Your task to perform on an android device: Go to notification settings Image 0: 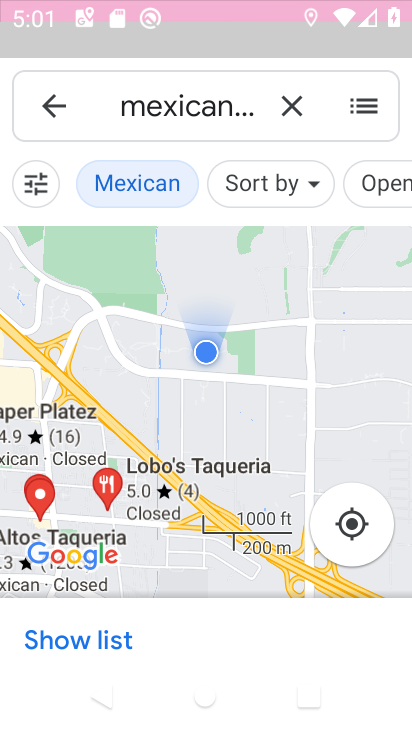
Step 0: drag from (326, 547) to (357, 319)
Your task to perform on an android device: Go to notification settings Image 1: 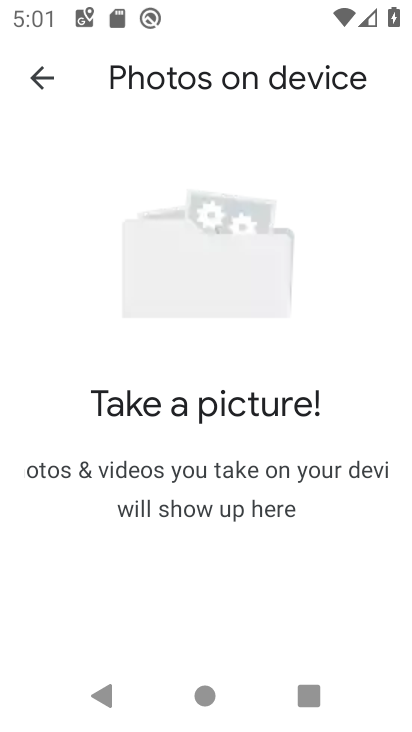
Step 1: press home button
Your task to perform on an android device: Go to notification settings Image 2: 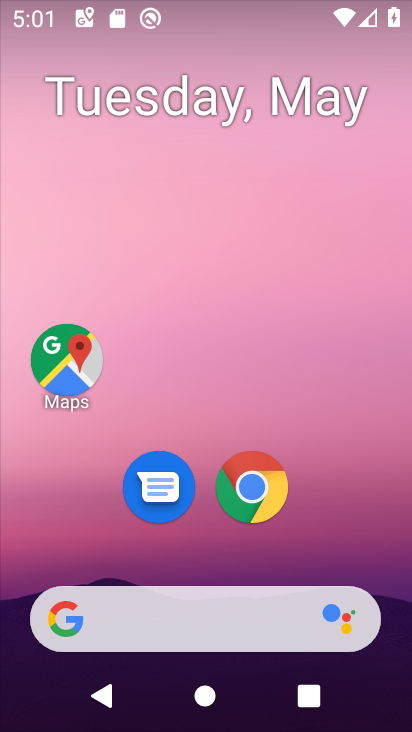
Step 2: drag from (335, 524) to (314, 96)
Your task to perform on an android device: Go to notification settings Image 3: 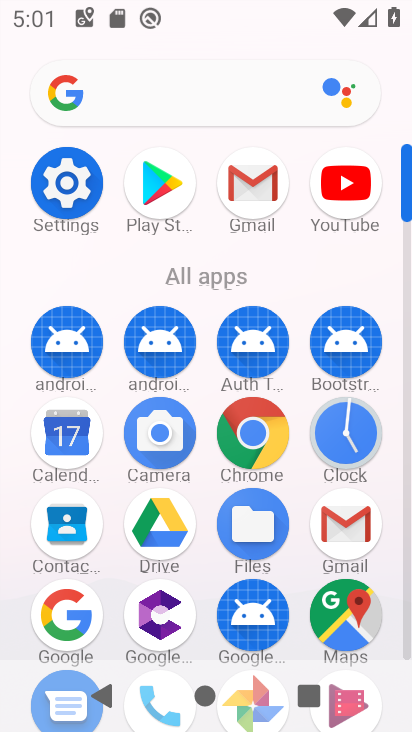
Step 3: click (76, 226)
Your task to perform on an android device: Go to notification settings Image 4: 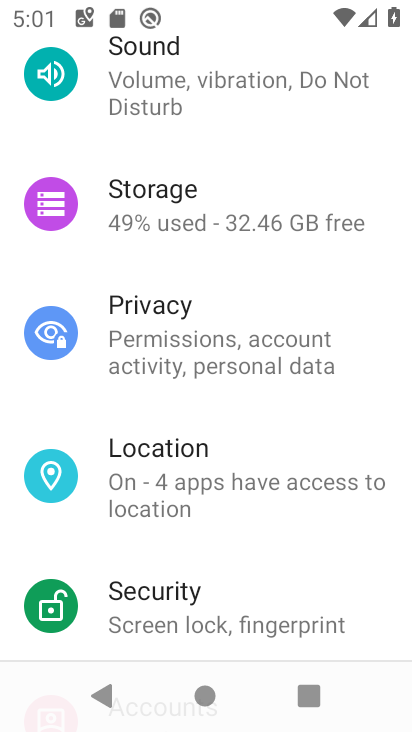
Step 4: drag from (199, 598) to (232, 282)
Your task to perform on an android device: Go to notification settings Image 5: 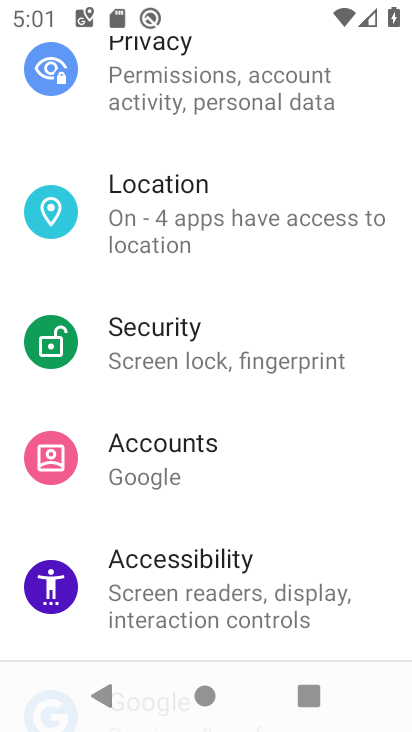
Step 5: drag from (238, 537) to (260, 310)
Your task to perform on an android device: Go to notification settings Image 6: 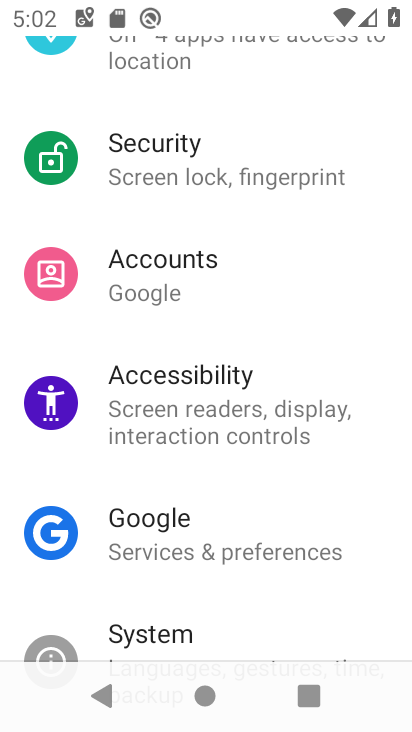
Step 6: drag from (193, 269) to (226, 679)
Your task to perform on an android device: Go to notification settings Image 7: 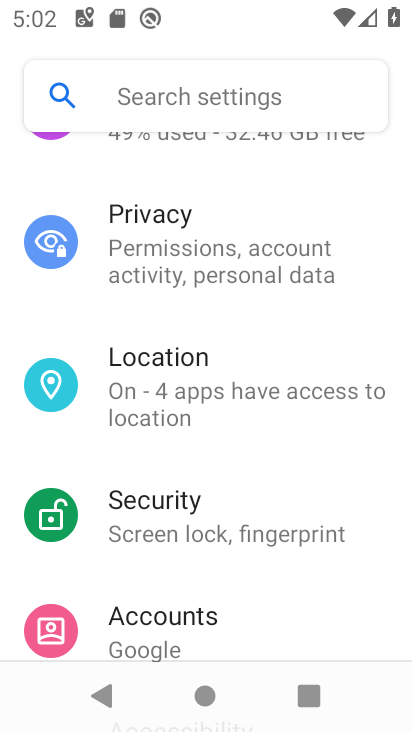
Step 7: drag from (216, 302) to (213, 483)
Your task to perform on an android device: Go to notification settings Image 8: 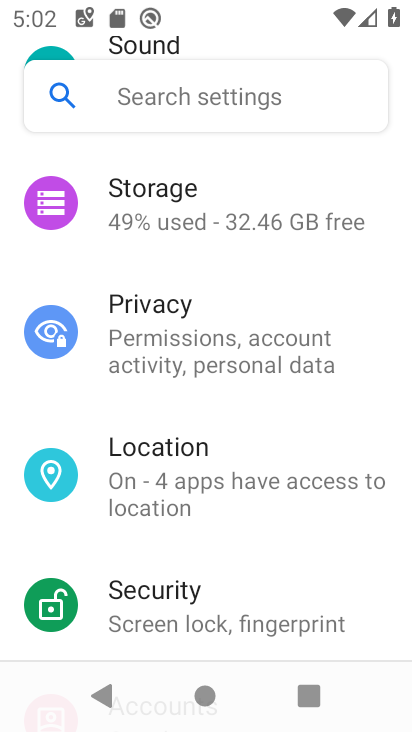
Step 8: drag from (204, 253) to (254, 660)
Your task to perform on an android device: Go to notification settings Image 9: 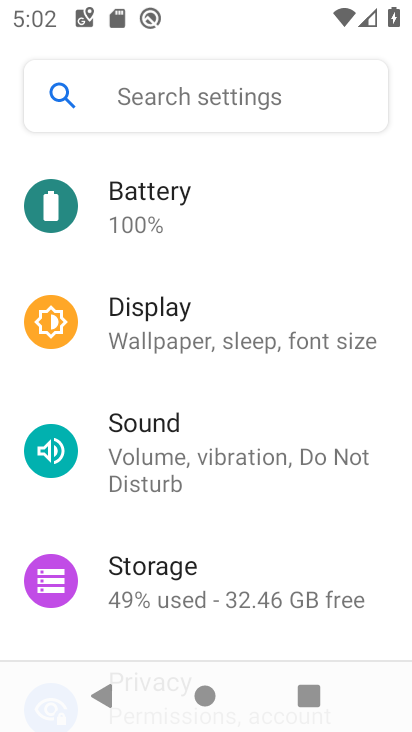
Step 9: drag from (222, 238) to (253, 617)
Your task to perform on an android device: Go to notification settings Image 10: 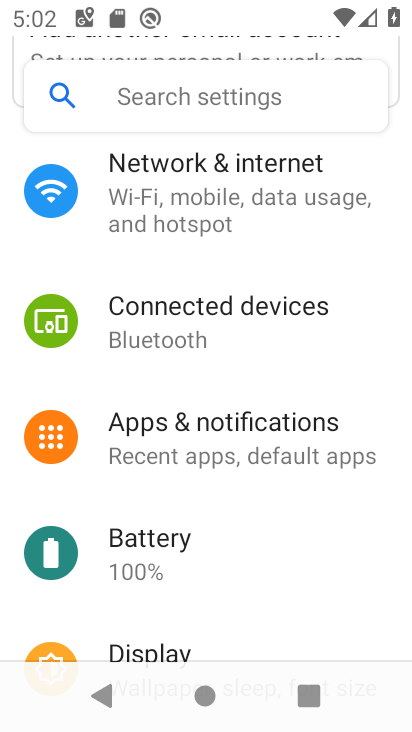
Step 10: click (155, 181)
Your task to perform on an android device: Go to notification settings Image 11: 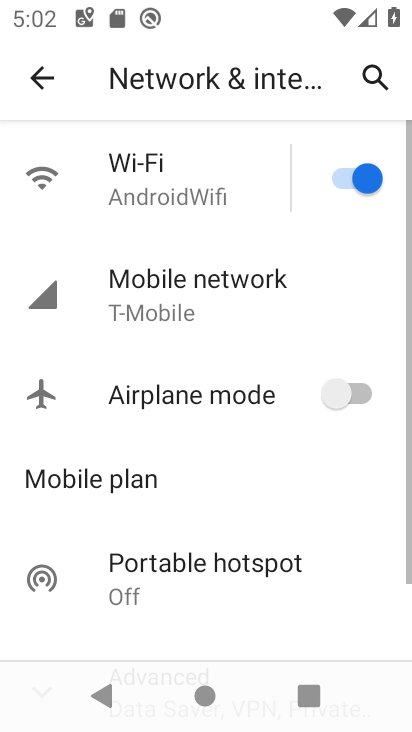
Step 11: click (45, 71)
Your task to perform on an android device: Go to notification settings Image 12: 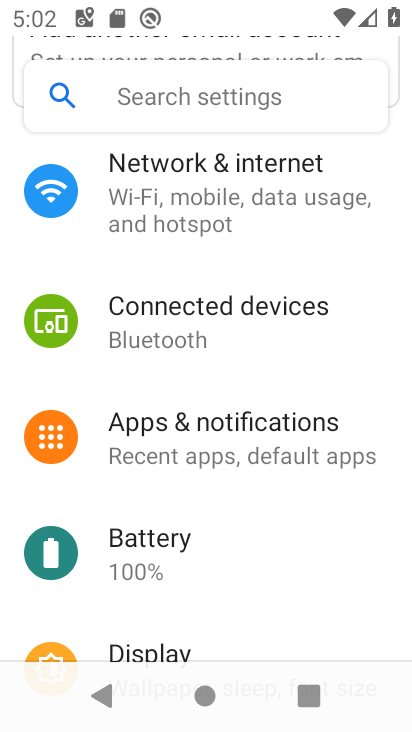
Step 12: click (192, 439)
Your task to perform on an android device: Go to notification settings Image 13: 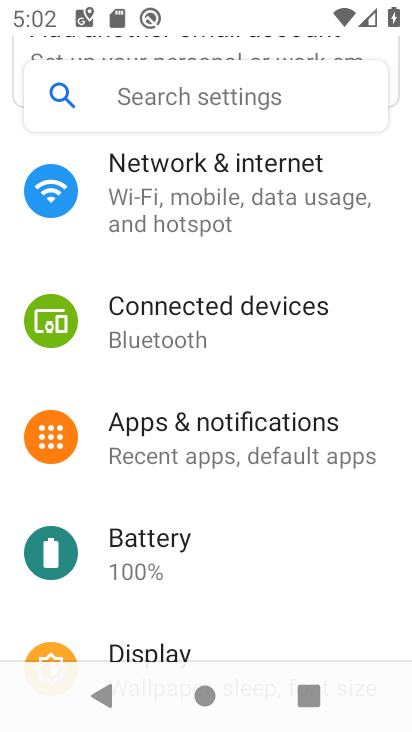
Step 13: task complete